Your task to perform on an android device: Find coffee shops on Maps Image 0: 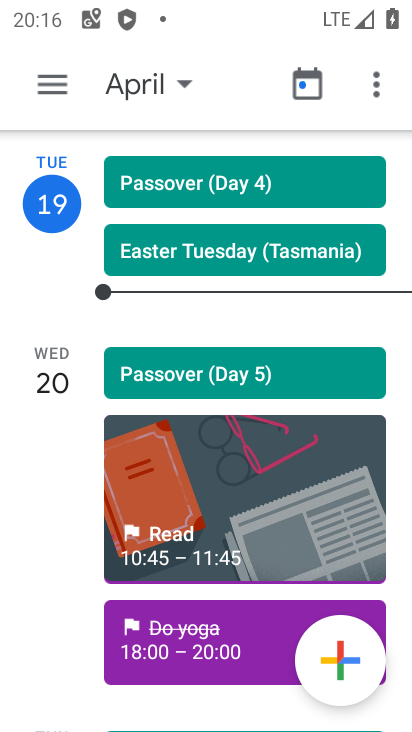
Step 0: press home button
Your task to perform on an android device: Find coffee shops on Maps Image 1: 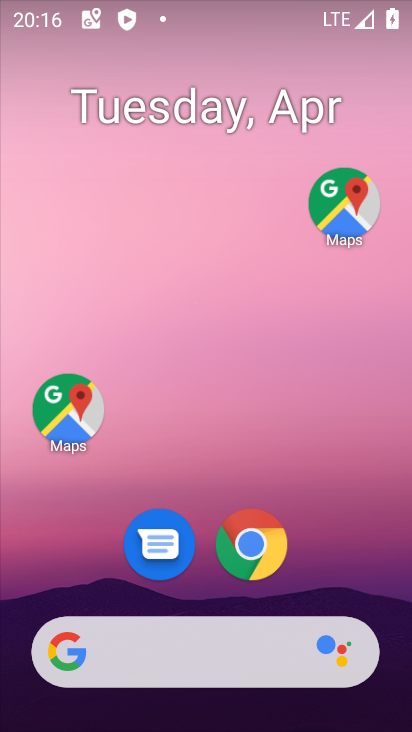
Step 1: drag from (150, 654) to (346, 61)
Your task to perform on an android device: Find coffee shops on Maps Image 2: 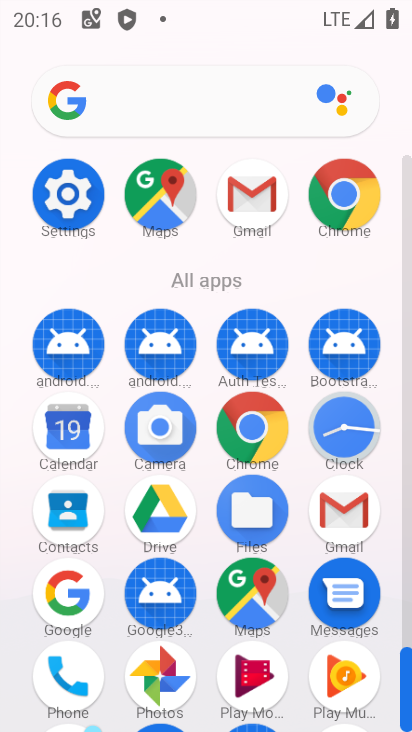
Step 2: click (161, 214)
Your task to perform on an android device: Find coffee shops on Maps Image 3: 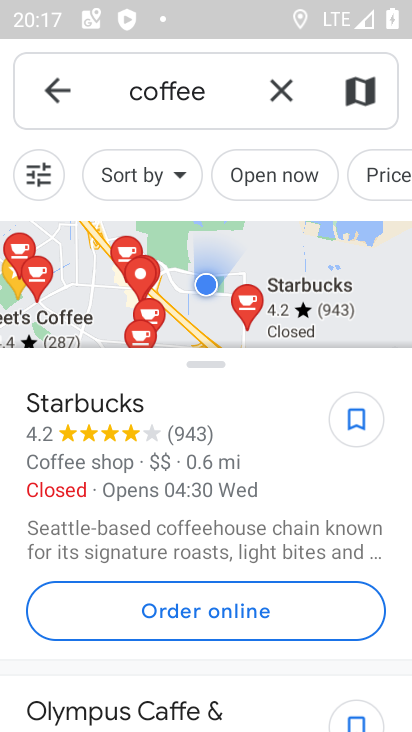
Step 3: task complete